Your task to perform on an android device: Open Youtube and go to "Your channel" Image 0: 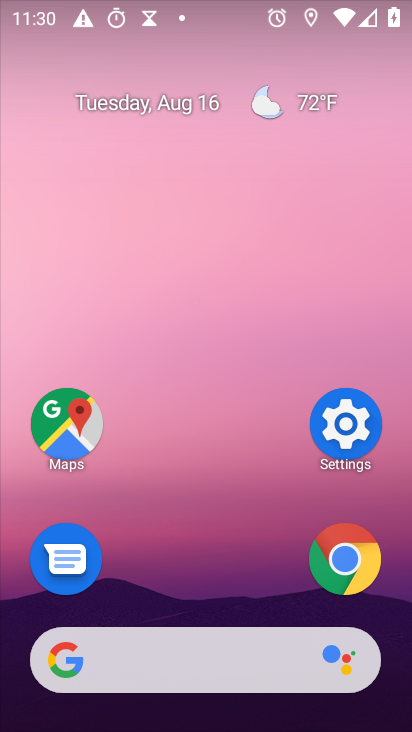
Step 0: drag from (180, 629) to (210, 57)
Your task to perform on an android device: Open Youtube and go to "Your channel" Image 1: 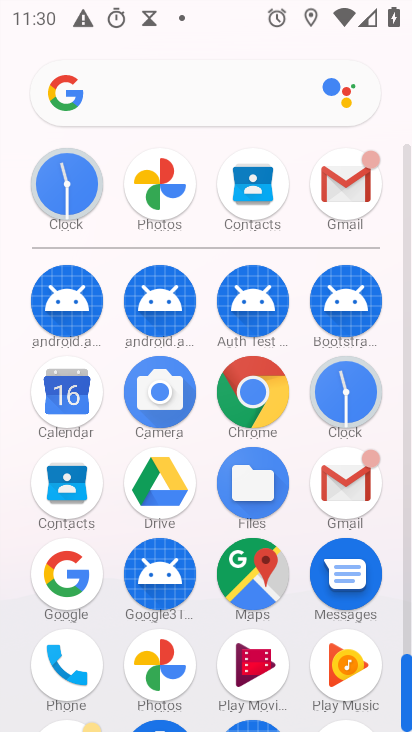
Step 1: drag from (204, 597) to (207, 128)
Your task to perform on an android device: Open Youtube and go to "Your channel" Image 2: 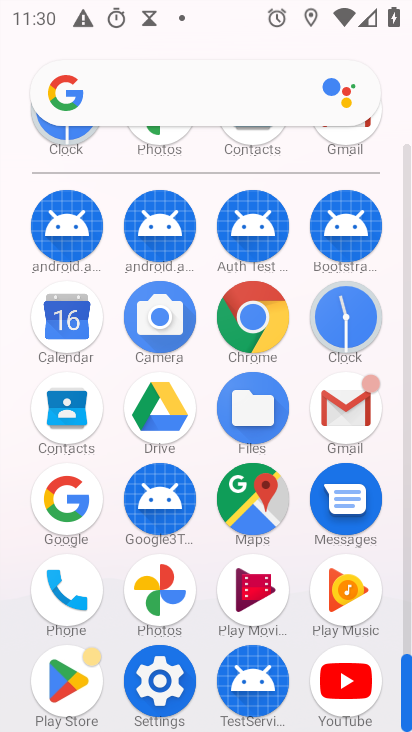
Step 2: click (343, 682)
Your task to perform on an android device: Open Youtube and go to "Your channel" Image 3: 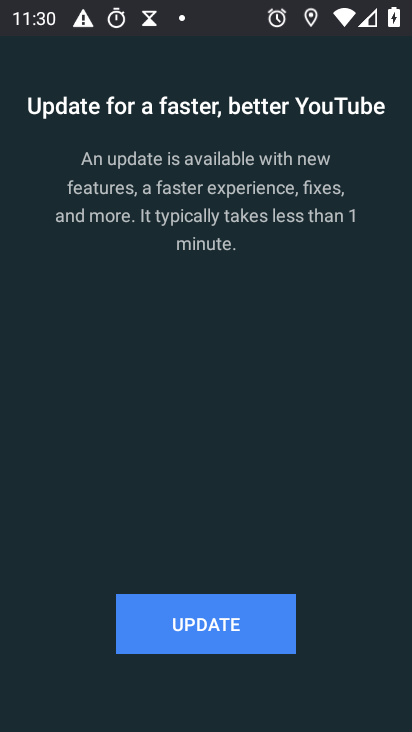
Step 3: click (215, 620)
Your task to perform on an android device: Open Youtube and go to "Your channel" Image 4: 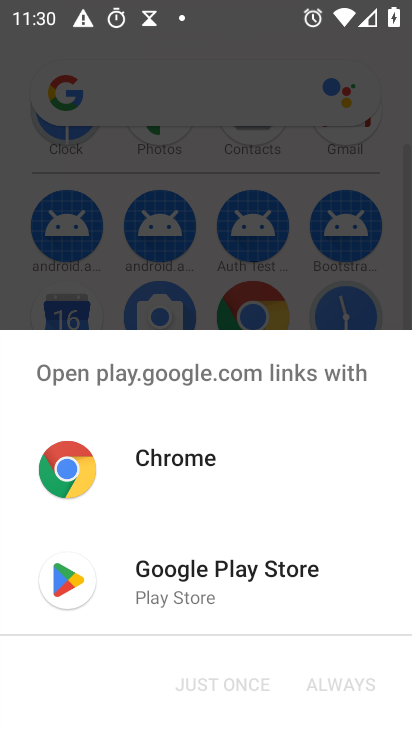
Step 4: click (206, 586)
Your task to perform on an android device: Open Youtube and go to "Your channel" Image 5: 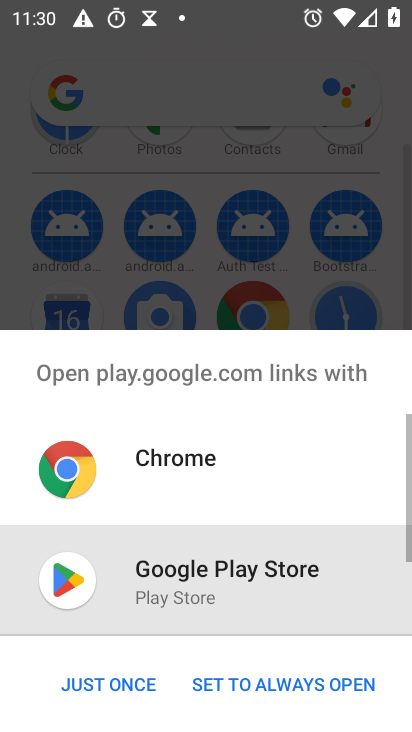
Step 5: click (105, 691)
Your task to perform on an android device: Open Youtube and go to "Your channel" Image 6: 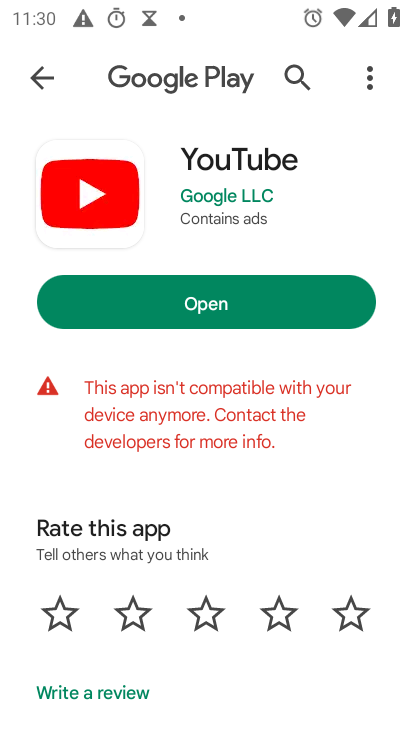
Step 6: click (222, 313)
Your task to perform on an android device: Open Youtube and go to "Your channel" Image 7: 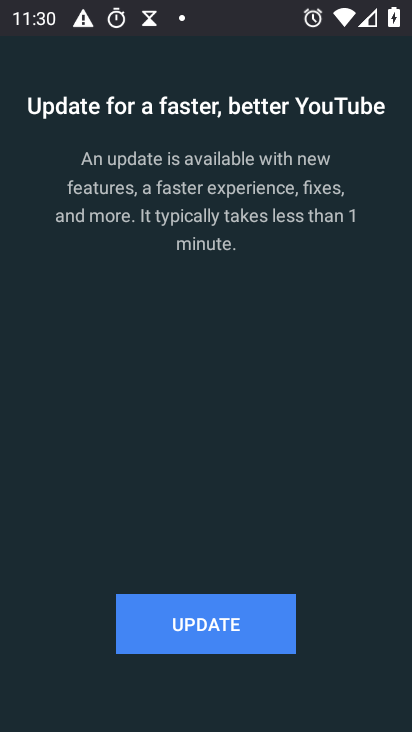
Step 7: click (207, 639)
Your task to perform on an android device: Open Youtube and go to "Your channel" Image 8: 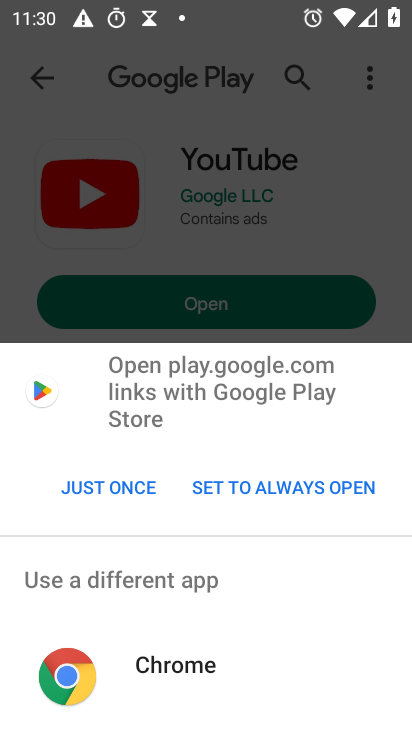
Step 8: click (121, 493)
Your task to perform on an android device: Open Youtube and go to "Your channel" Image 9: 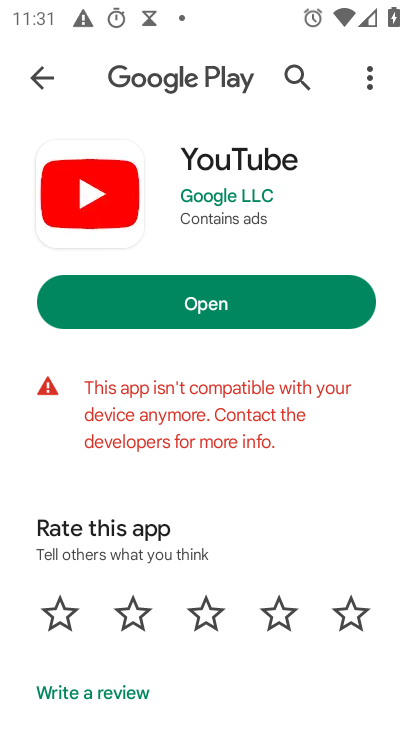
Step 9: task complete